Your task to perform on an android device: Open Amazon Image 0: 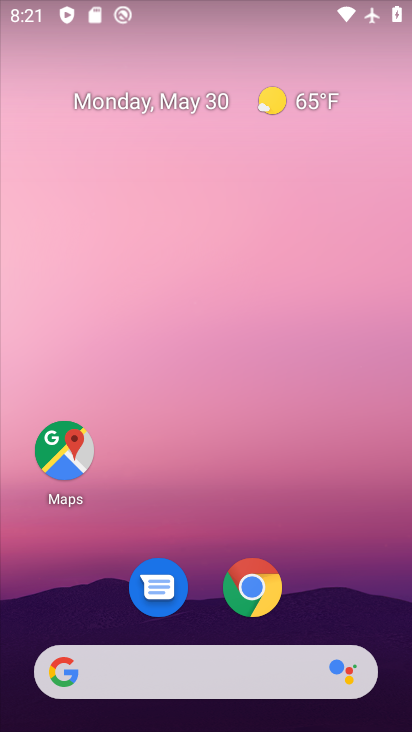
Step 0: press home button
Your task to perform on an android device: Open Amazon Image 1: 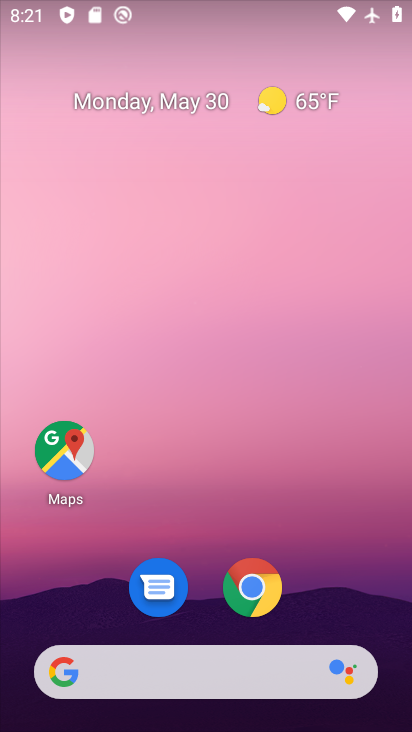
Step 1: click (256, 587)
Your task to perform on an android device: Open Amazon Image 2: 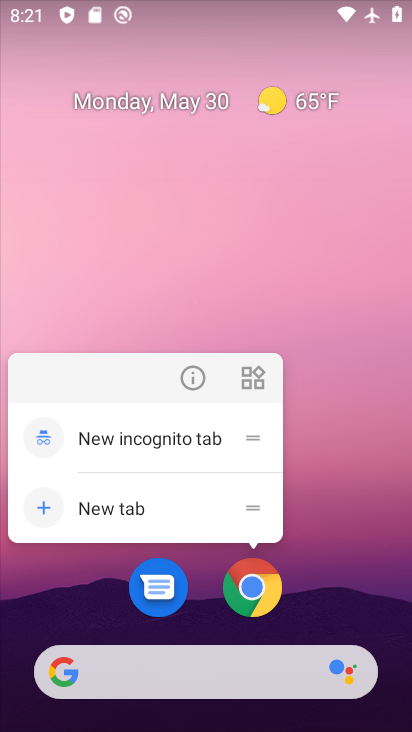
Step 2: click (253, 607)
Your task to perform on an android device: Open Amazon Image 3: 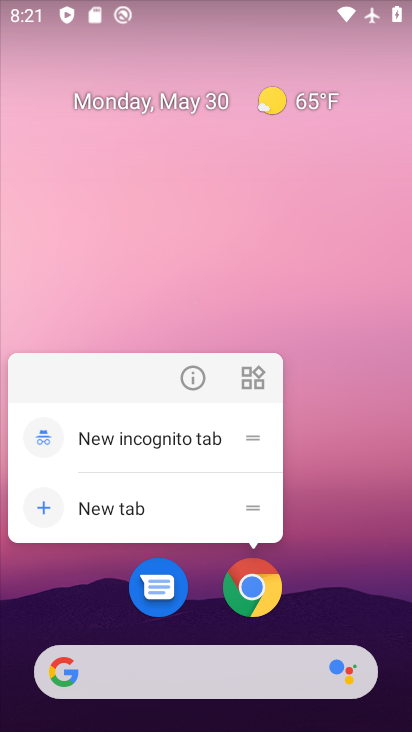
Step 3: click (254, 594)
Your task to perform on an android device: Open Amazon Image 4: 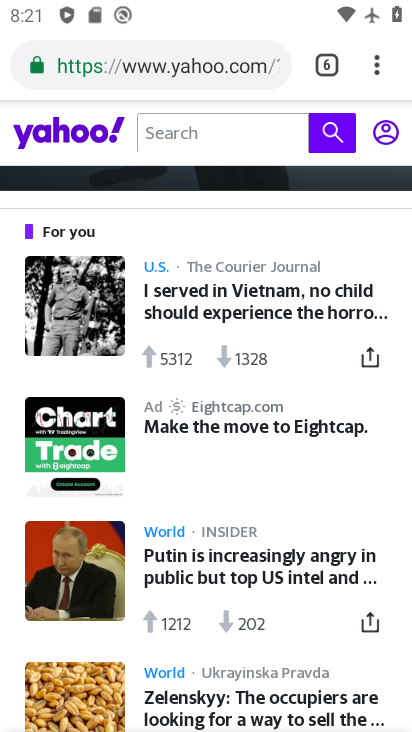
Step 4: drag from (379, 66) to (222, 129)
Your task to perform on an android device: Open Amazon Image 5: 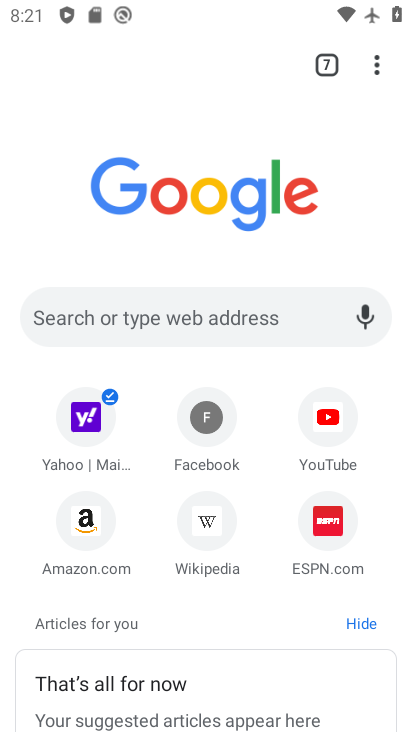
Step 5: click (78, 524)
Your task to perform on an android device: Open Amazon Image 6: 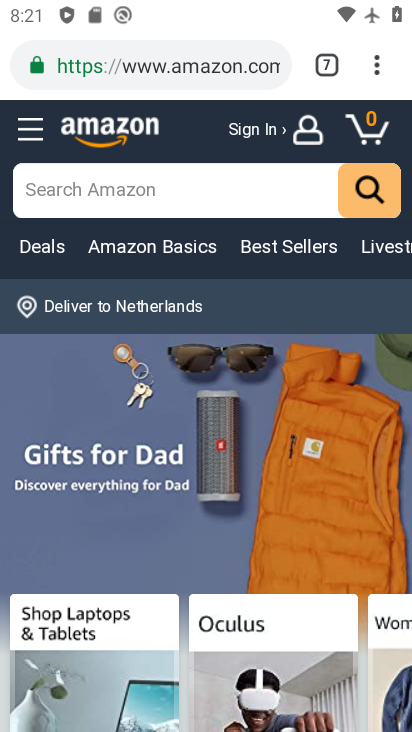
Step 6: task complete